Your task to perform on an android device: move a message to another label in the gmail app Image 0: 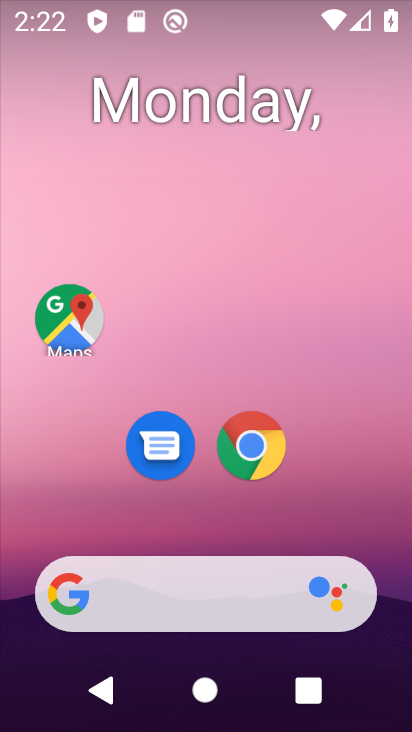
Step 0: drag from (198, 513) to (394, 133)
Your task to perform on an android device: move a message to another label in the gmail app Image 1: 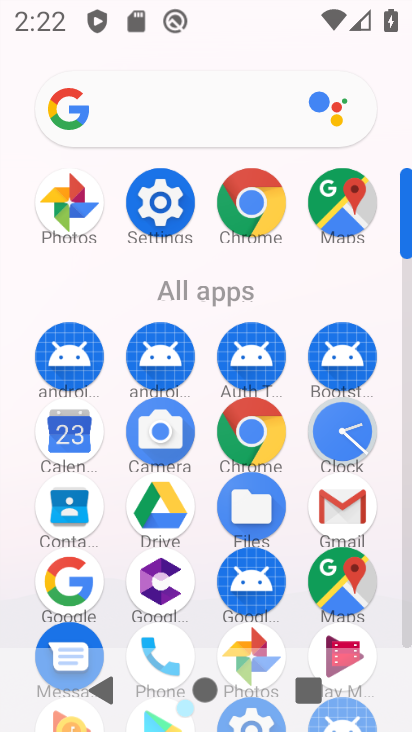
Step 1: click (338, 502)
Your task to perform on an android device: move a message to another label in the gmail app Image 2: 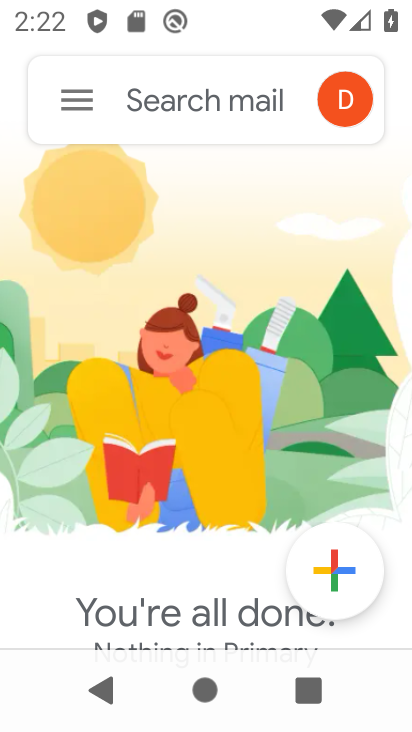
Step 2: task complete